Your task to perform on an android device: Go to Google Image 0: 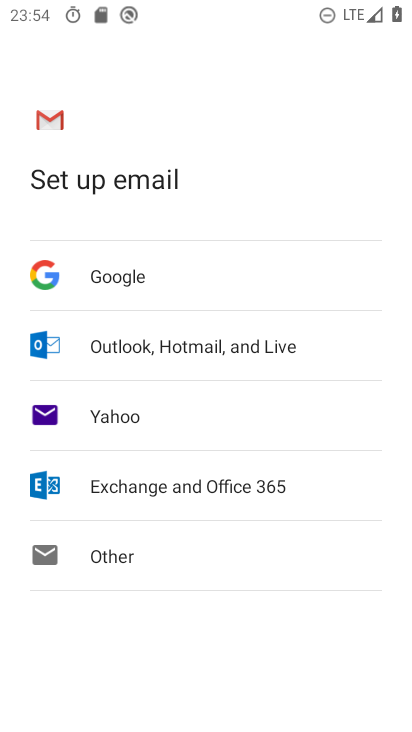
Step 0: press home button
Your task to perform on an android device: Go to Google Image 1: 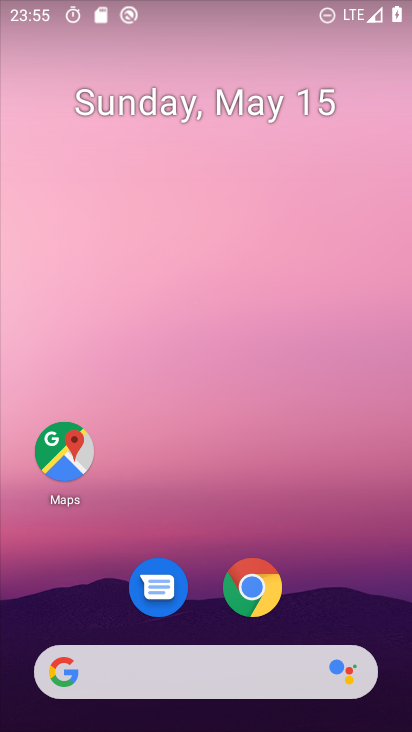
Step 1: drag from (209, 624) to (186, 189)
Your task to perform on an android device: Go to Google Image 2: 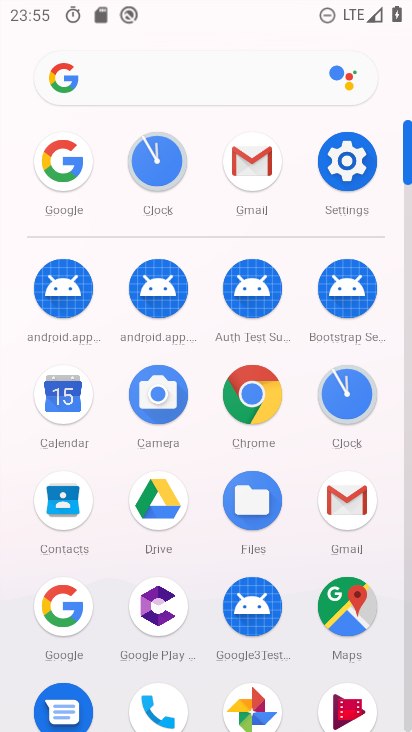
Step 2: click (19, 163)
Your task to perform on an android device: Go to Google Image 3: 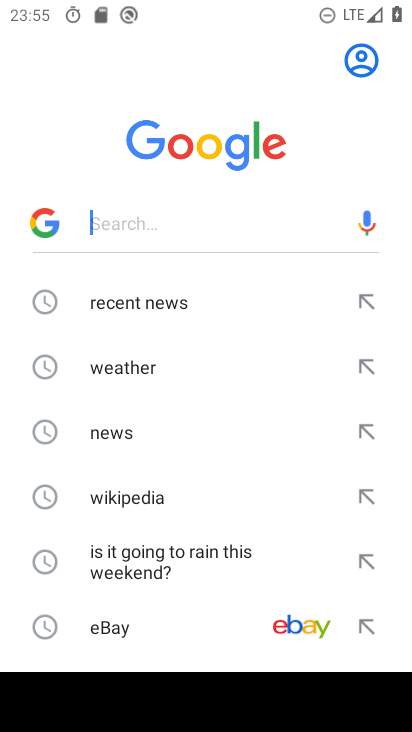
Step 3: task complete